Your task to perform on an android device: create a new album in the google photos Image 0: 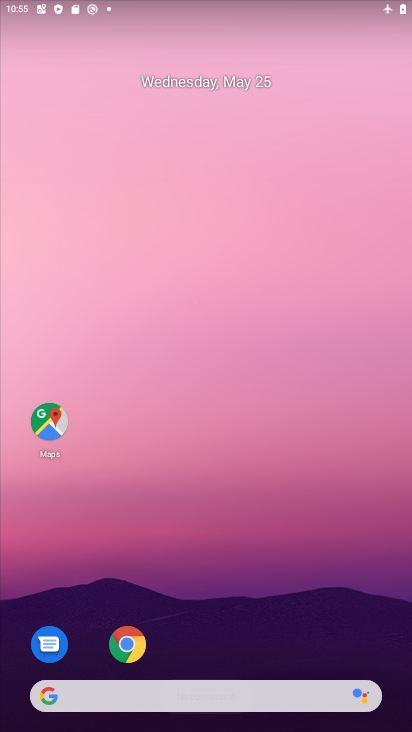
Step 0: drag from (203, 635) to (181, 56)
Your task to perform on an android device: create a new album in the google photos Image 1: 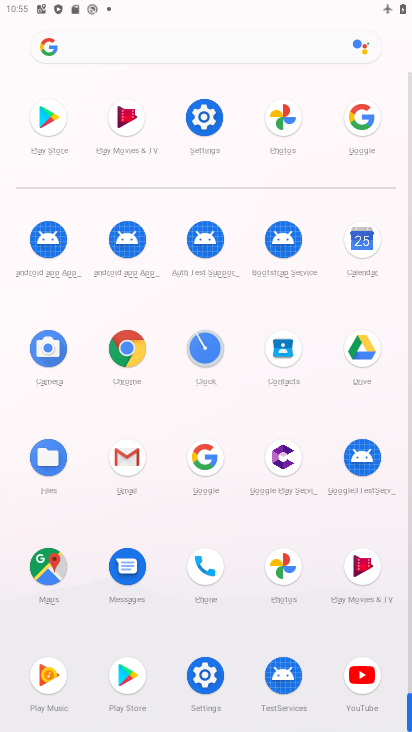
Step 1: click (284, 570)
Your task to perform on an android device: create a new album in the google photos Image 2: 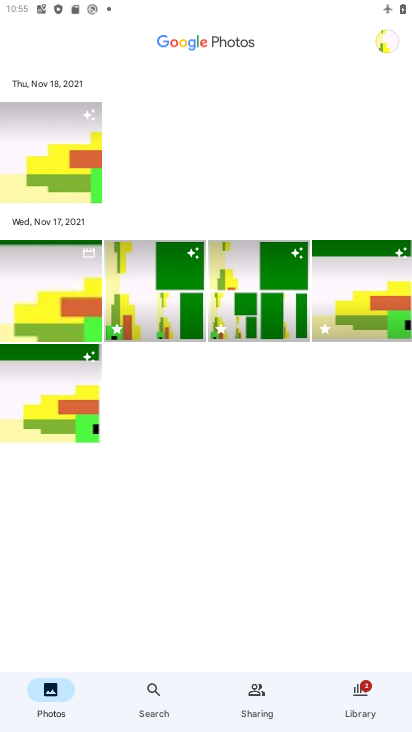
Step 2: click (161, 692)
Your task to perform on an android device: create a new album in the google photos Image 3: 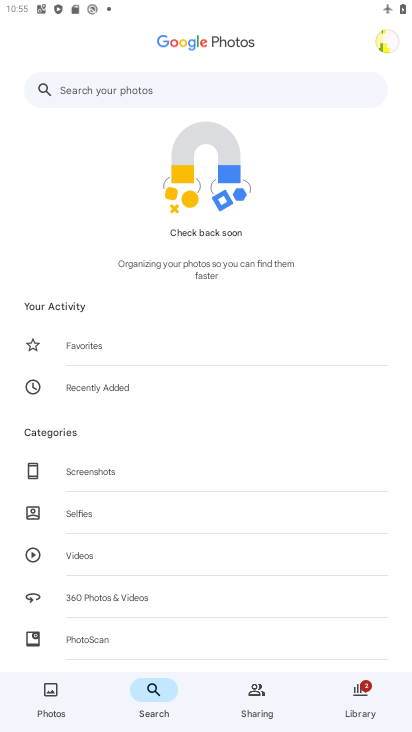
Step 3: click (366, 684)
Your task to perform on an android device: create a new album in the google photos Image 4: 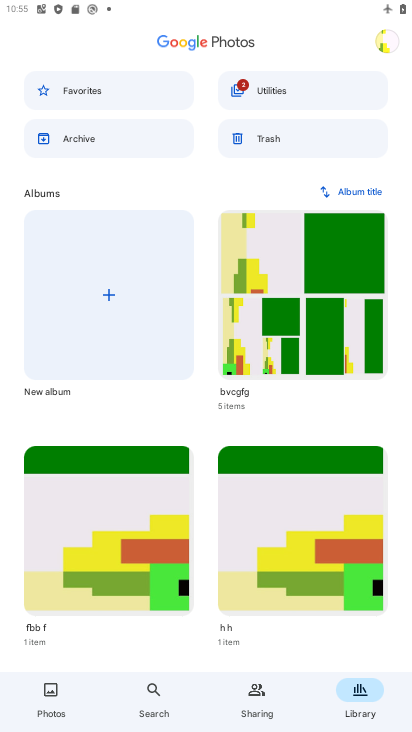
Step 4: click (126, 313)
Your task to perform on an android device: create a new album in the google photos Image 5: 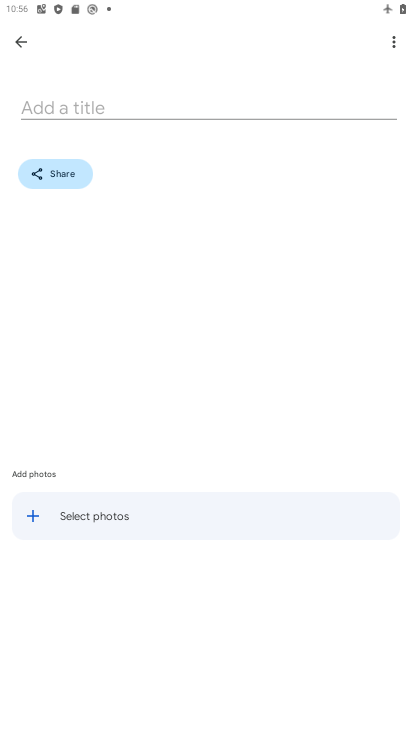
Step 5: click (122, 86)
Your task to perform on an android device: create a new album in the google photos Image 6: 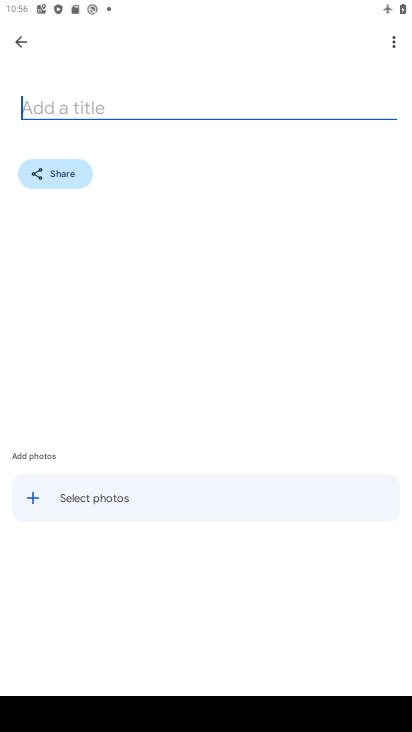
Step 6: type "ngzdg"
Your task to perform on an android device: create a new album in the google photos Image 7: 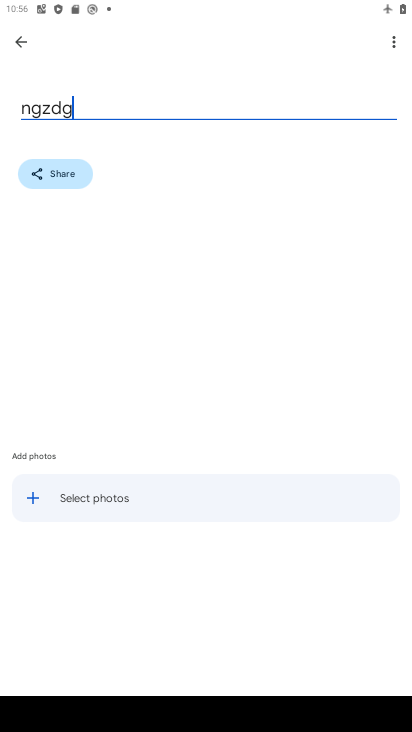
Step 7: click (32, 499)
Your task to perform on an android device: create a new album in the google photos Image 8: 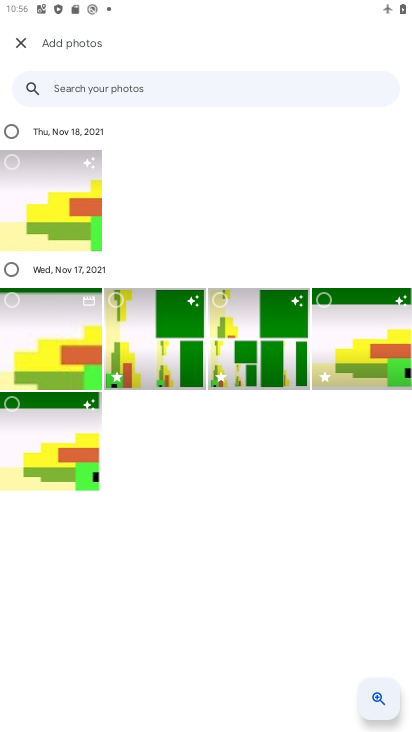
Step 8: click (62, 202)
Your task to perform on an android device: create a new album in the google photos Image 9: 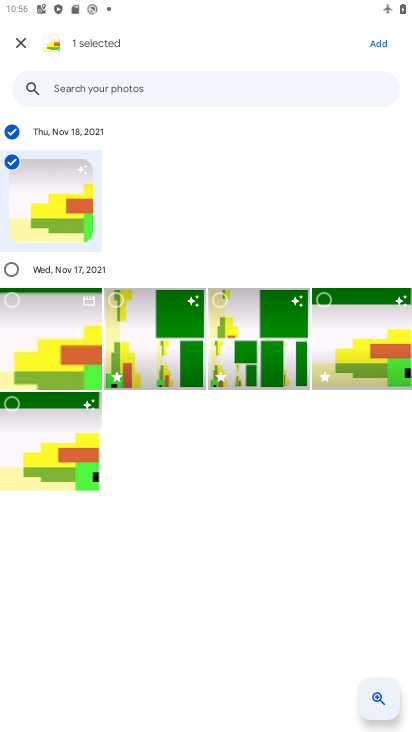
Step 9: click (375, 54)
Your task to perform on an android device: create a new album in the google photos Image 10: 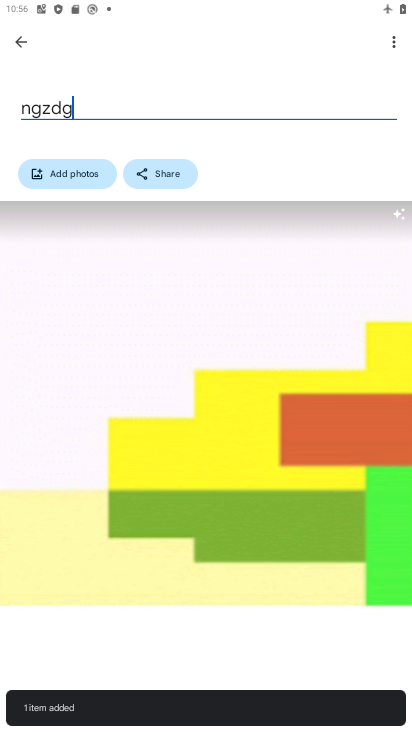
Step 10: task complete